Your task to perform on an android device: Open privacy settings Image 0: 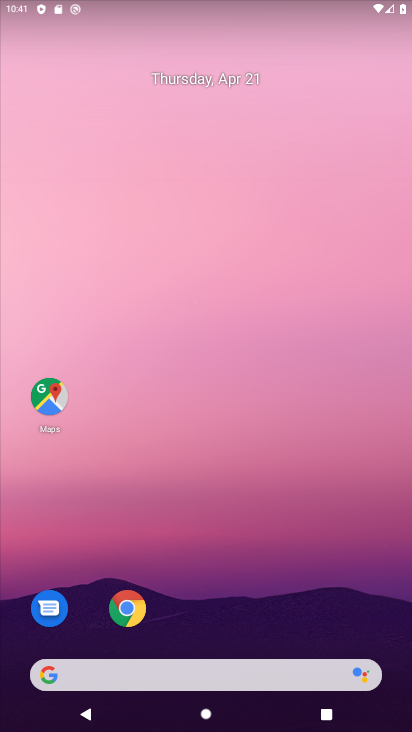
Step 0: click (133, 614)
Your task to perform on an android device: Open privacy settings Image 1: 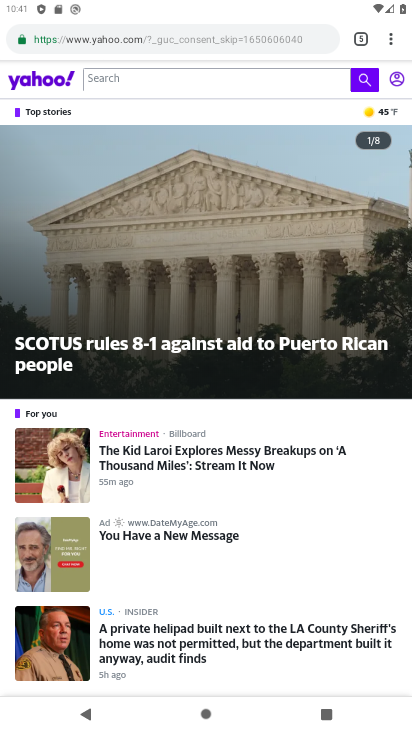
Step 1: drag from (392, 35) to (260, 519)
Your task to perform on an android device: Open privacy settings Image 2: 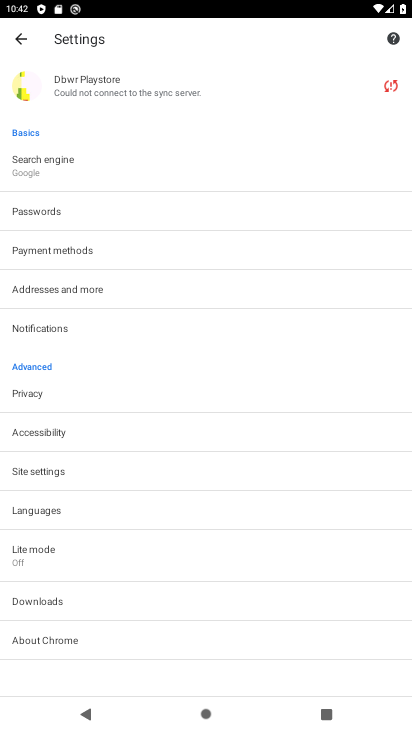
Step 2: click (32, 392)
Your task to perform on an android device: Open privacy settings Image 3: 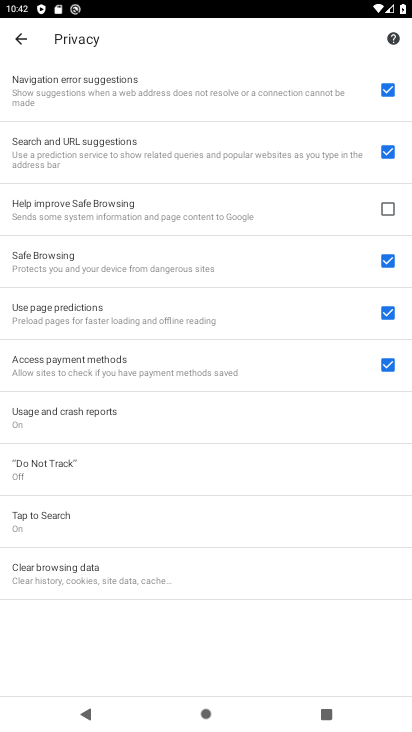
Step 3: task complete